Your task to perform on an android device: Search for "usb-c to usb-b" on walmart, select the first entry, and add it to the cart. Image 0: 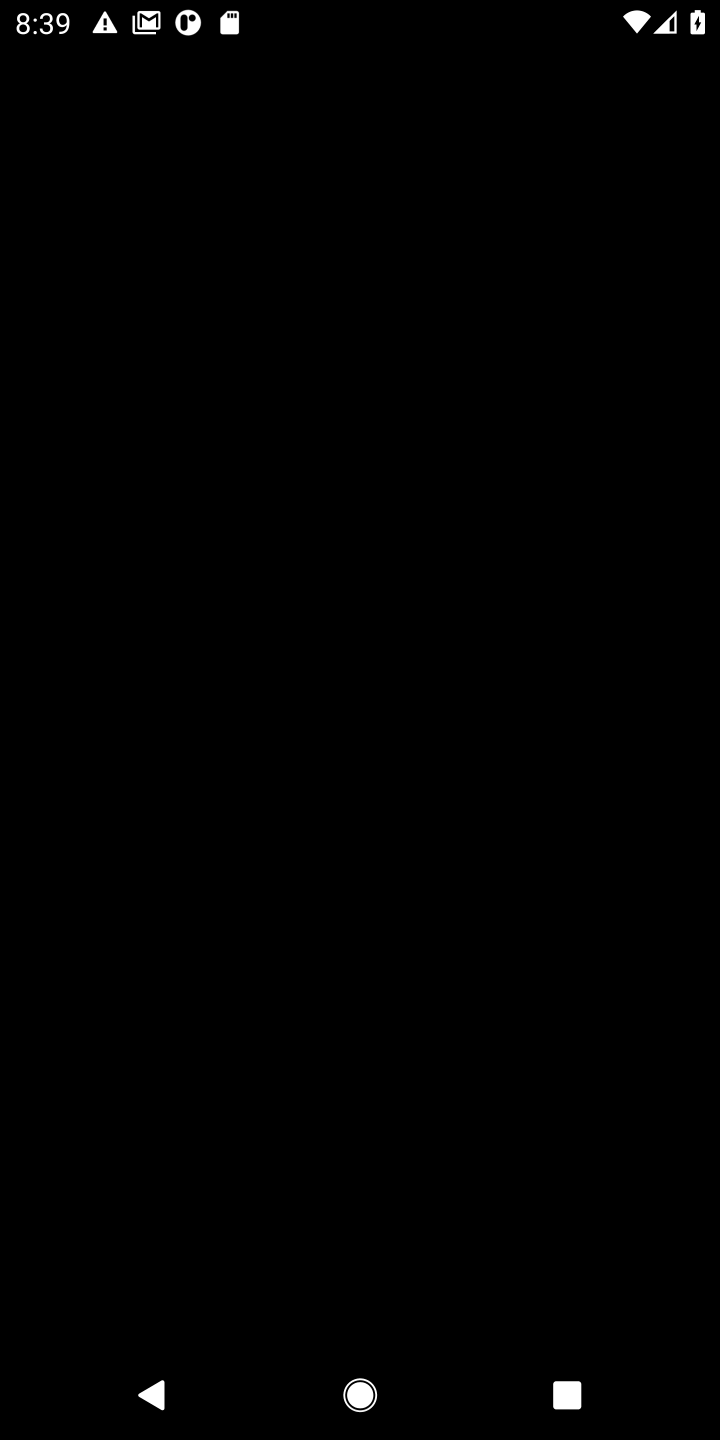
Step 0: press home button
Your task to perform on an android device: Search for "usb-c to usb-b" on walmart, select the first entry, and add it to the cart. Image 1: 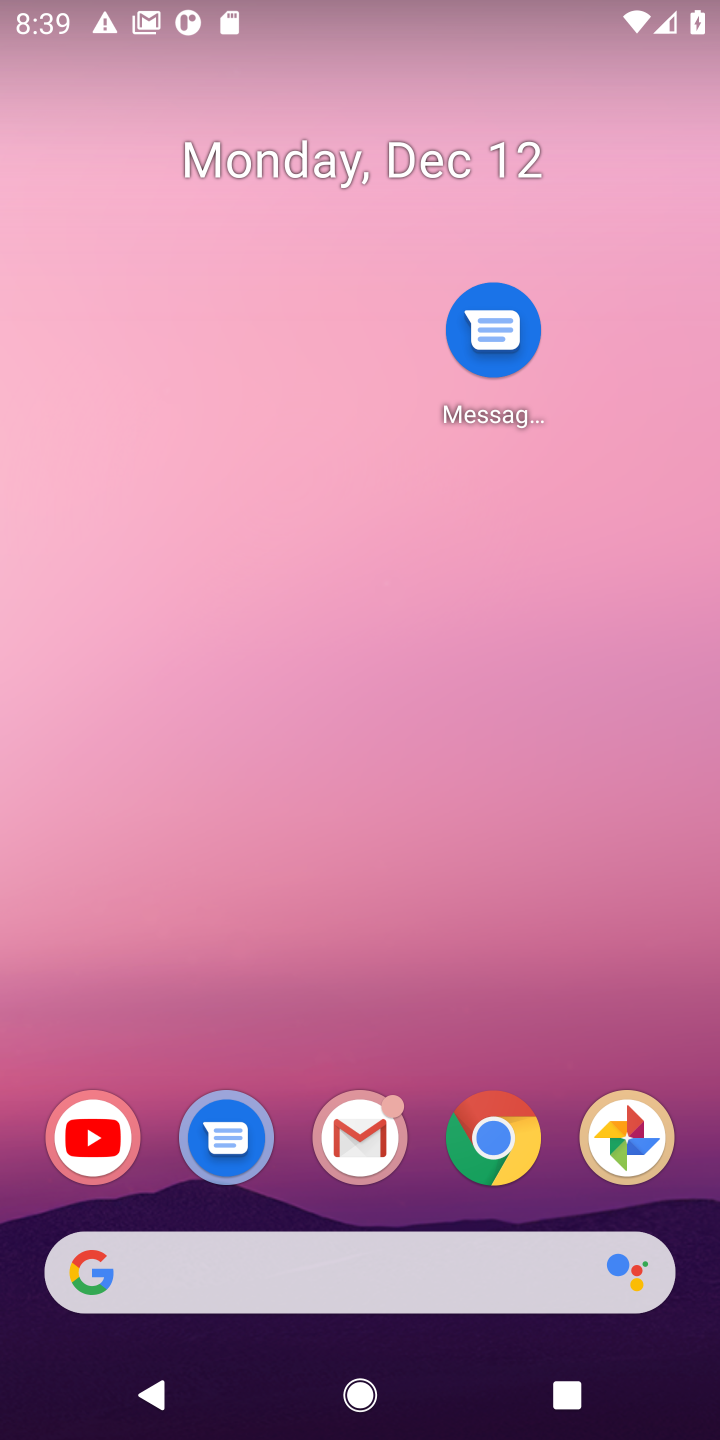
Step 1: drag from (379, 1199) to (464, 418)
Your task to perform on an android device: Search for "usb-c to usb-b" on walmart, select the first entry, and add it to the cart. Image 2: 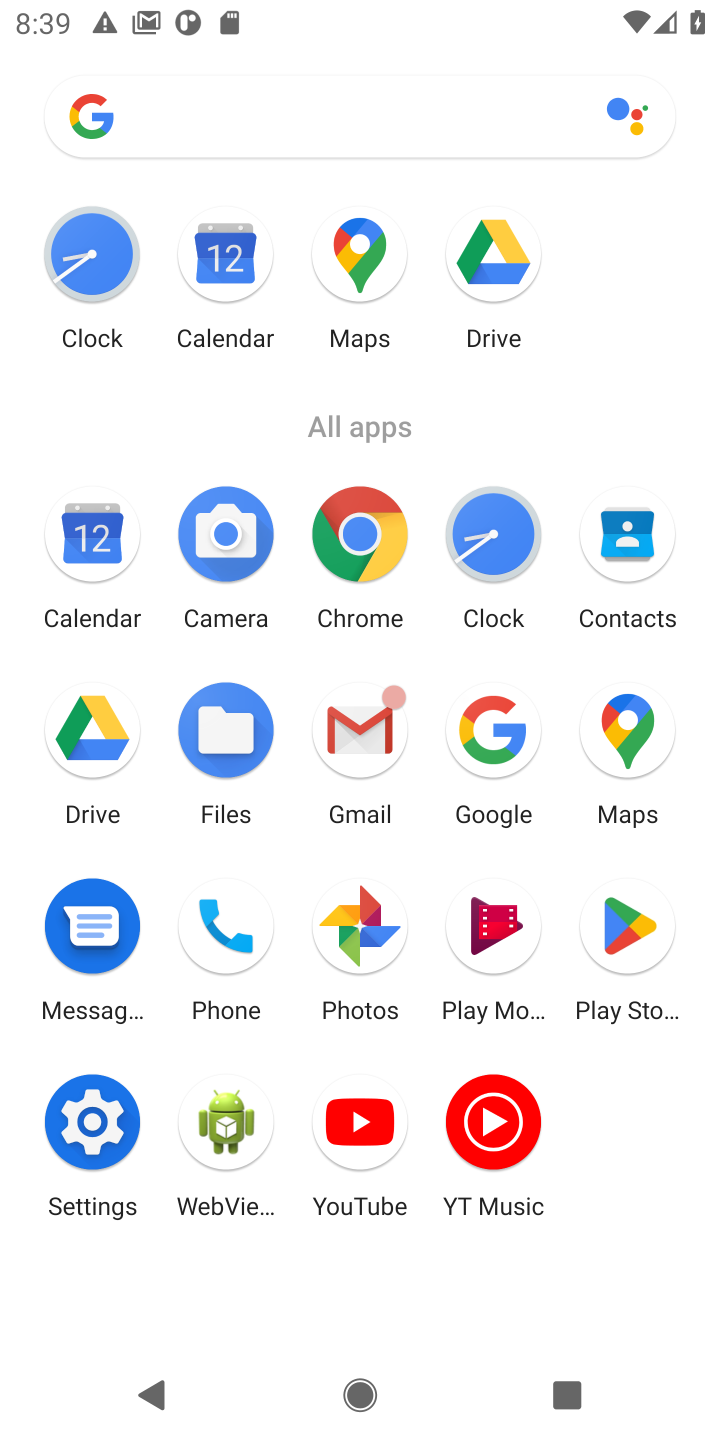
Step 2: click (480, 702)
Your task to perform on an android device: Search for "usb-c to usb-b" on walmart, select the first entry, and add it to the cart. Image 3: 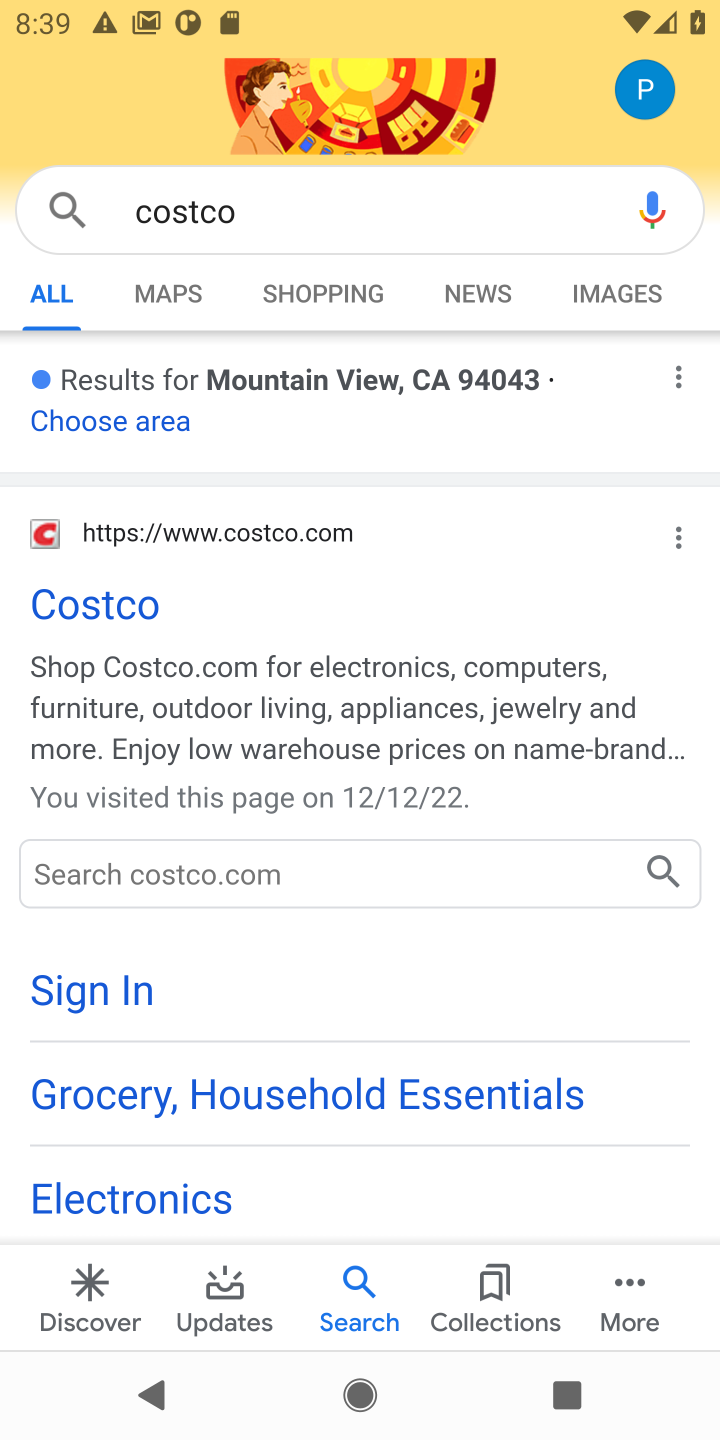
Step 3: click (174, 192)
Your task to perform on an android device: Search for "usb-c to usb-b" on walmart, select the first entry, and add it to the cart. Image 4: 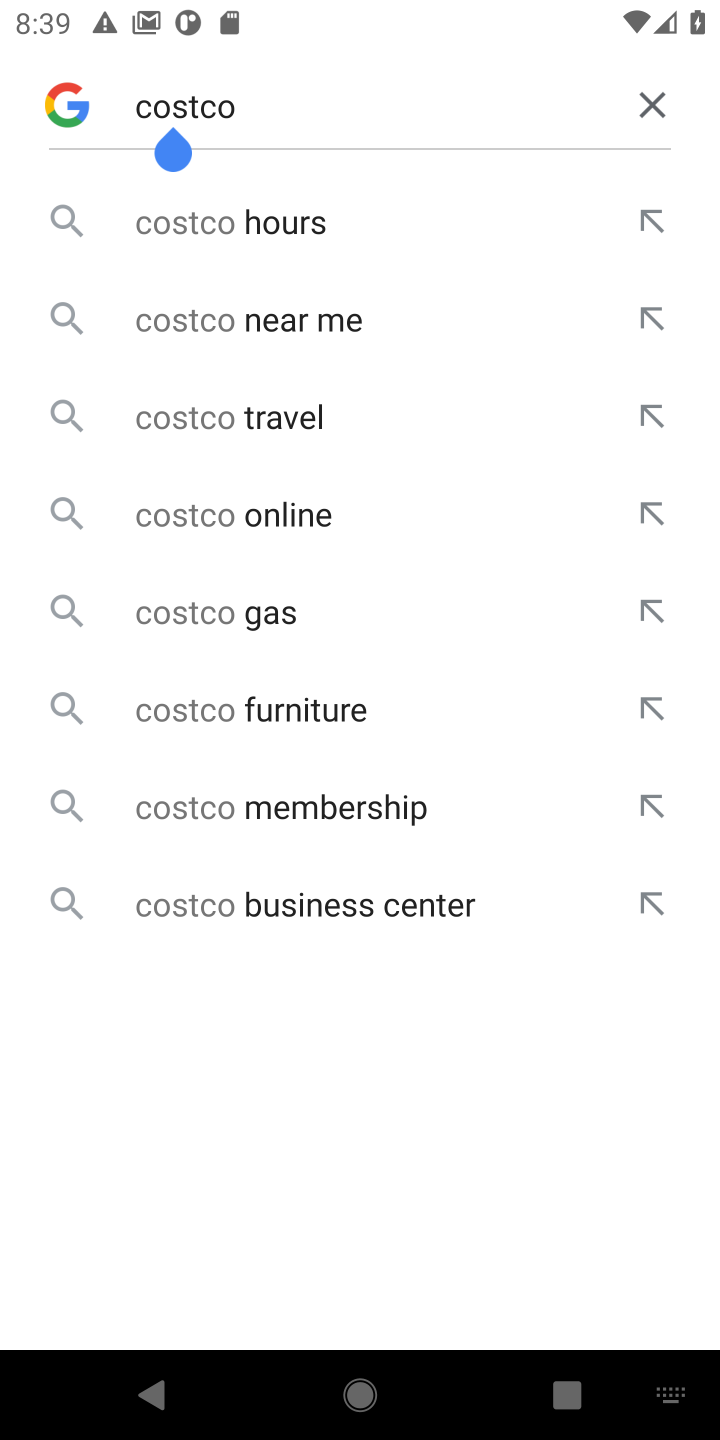
Step 4: click (658, 103)
Your task to perform on an android device: Search for "usb-c to usb-b" on walmart, select the first entry, and add it to the cart. Image 5: 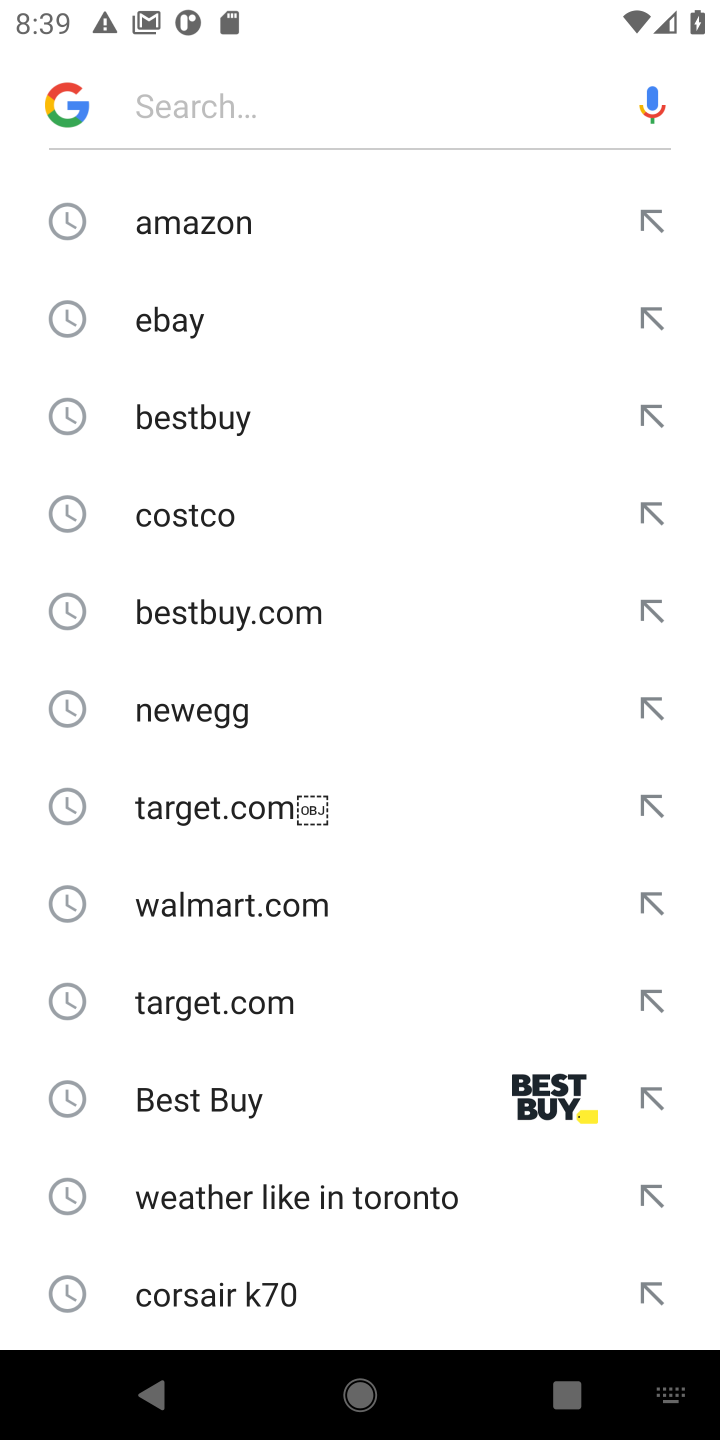
Step 5: click (211, 899)
Your task to perform on an android device: Search for "usb-c to usb-b" on walmart, select the first entry, and add it to the cart. Image 6: 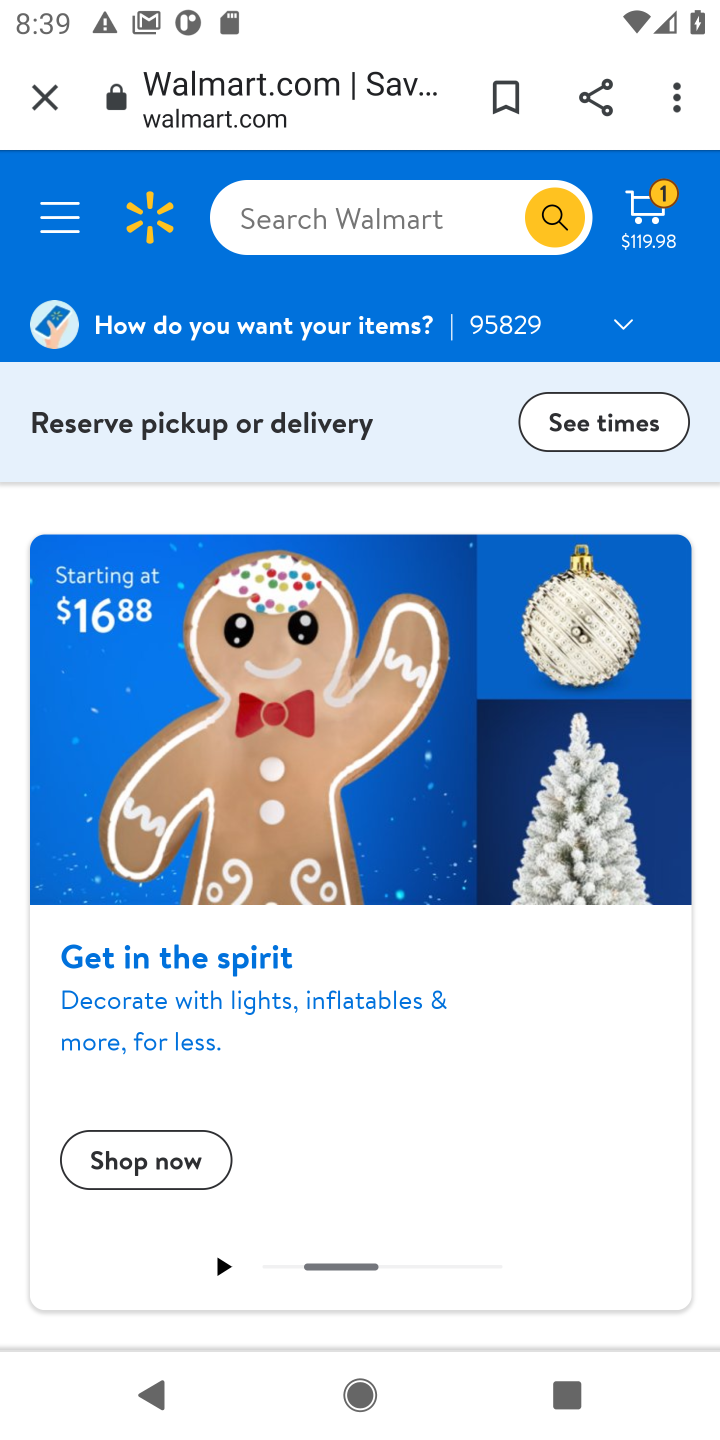
Step 6: click (340, 228)
Your task to perform on an android device: Search for "usb-c to usb-b" on walmart, select the first entry, and add it to the cart. Image 7: 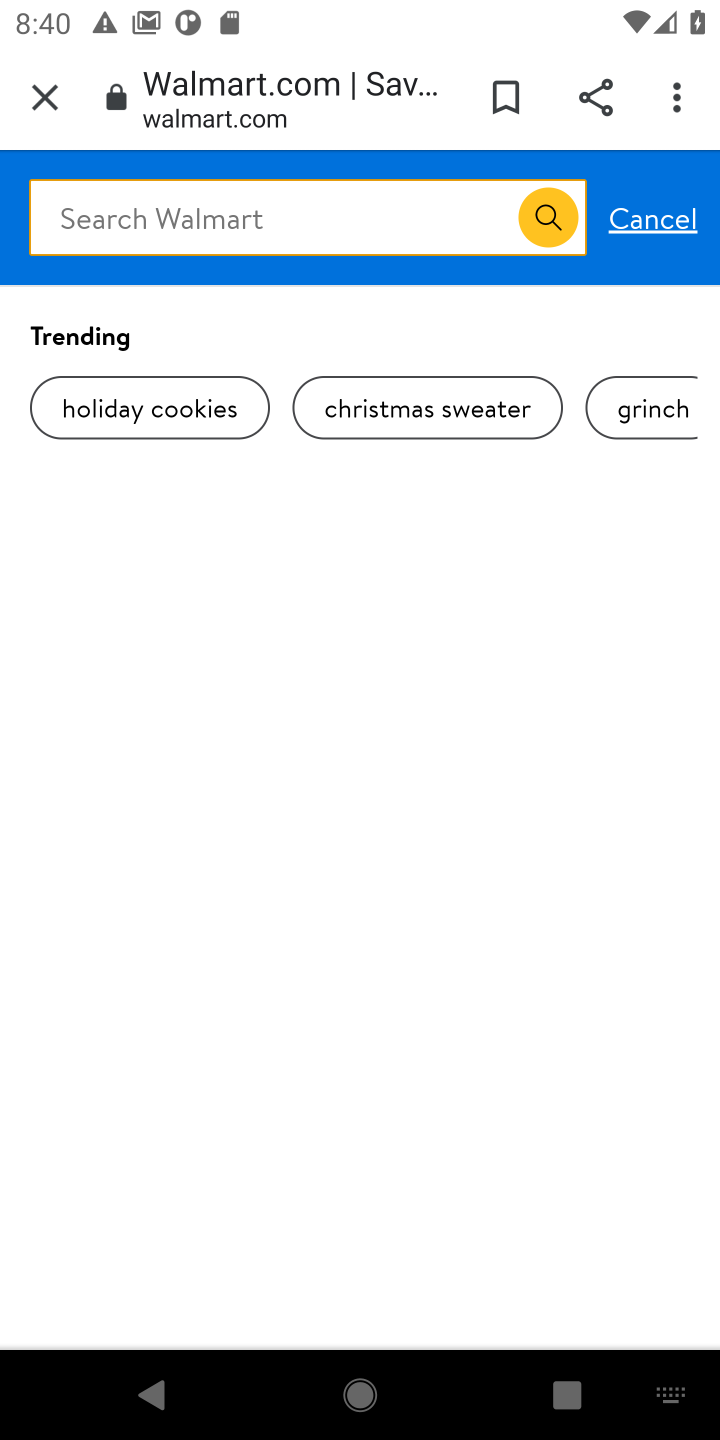
Step 7: type "usb-c to usb-b"
Your task to perform on an android device: Search for "usb-c to usb-b" on walmart, select the first entry, and add it to the cart. Image 8: 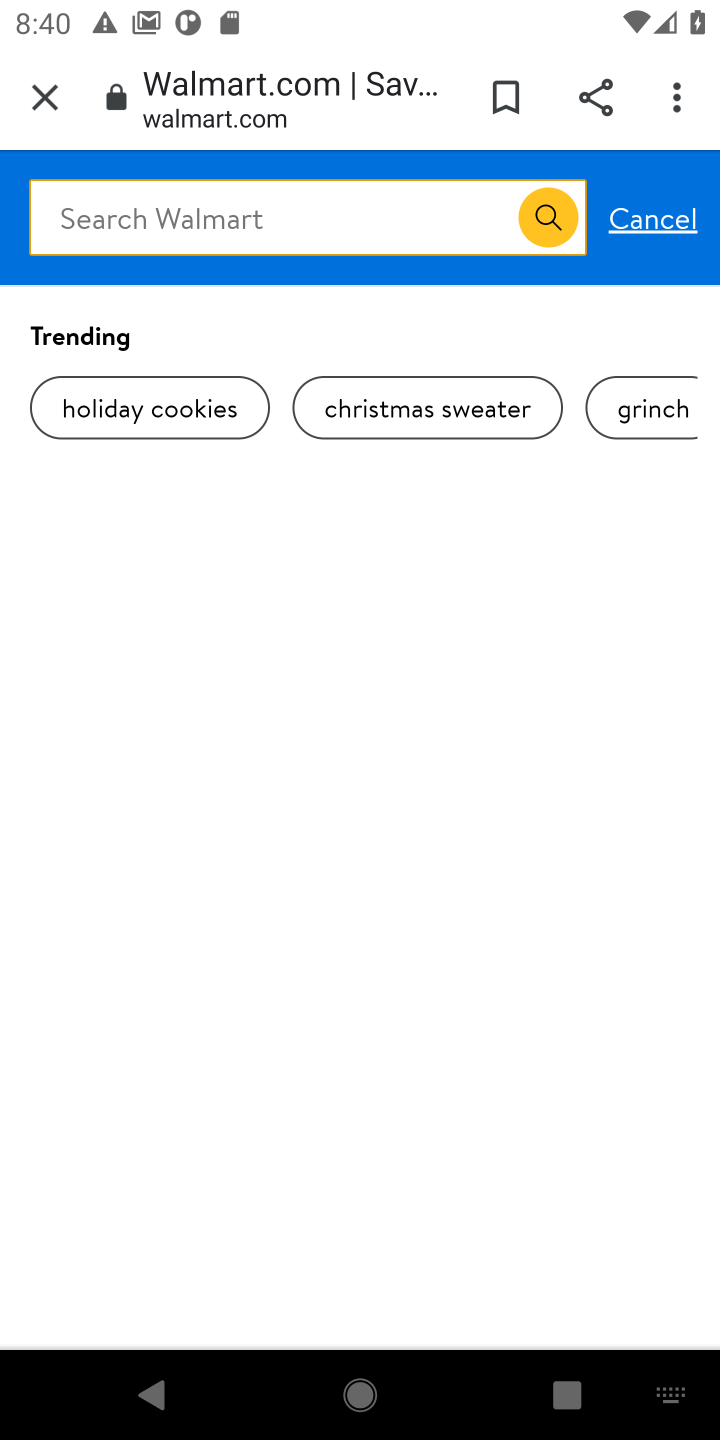
Step 8: click (537, 229)
Your task to perform on an android device: Search for "usb-c to usb-b" on walmart, select the first entry, and add it to the cart. Image 9: 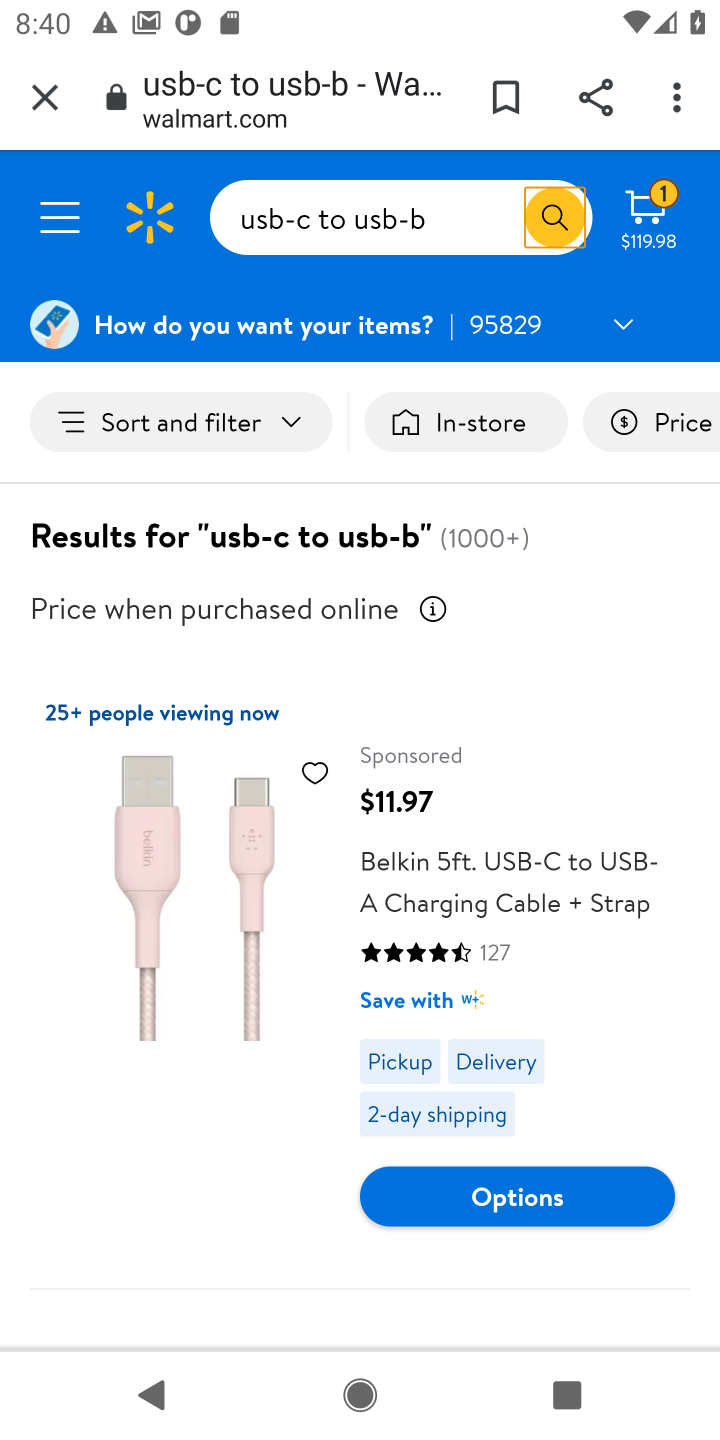
Step 9: drag from (207, 1131) to (290, 498)
Your task to perform on an android device: Search for "usb-c to usb-b" on walmart, select the first entry, and add it to the cart. Image 10: 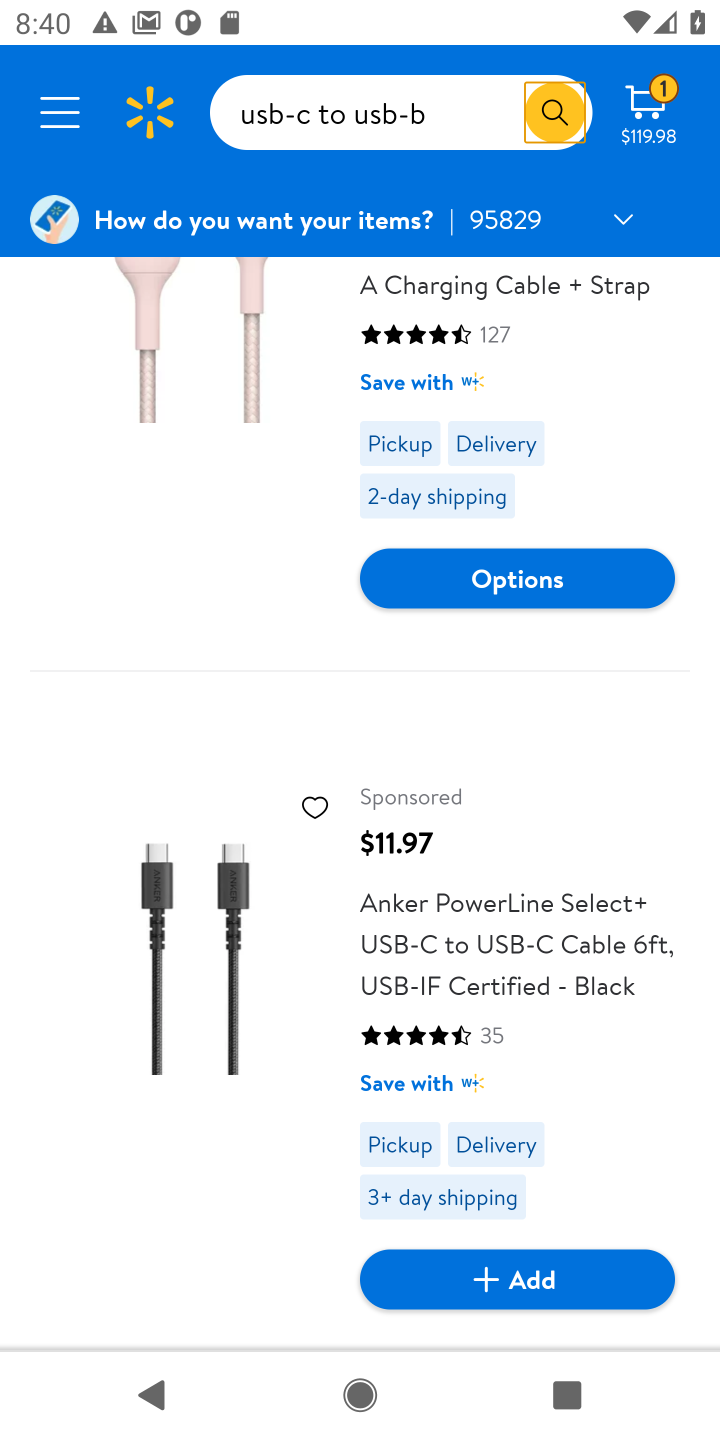
Step 10: click (524, 561)
Your task to perform on an android device: Search for "usb-c to usb-b" on walmart, select the first entry, and add it to the cart. Image 11: 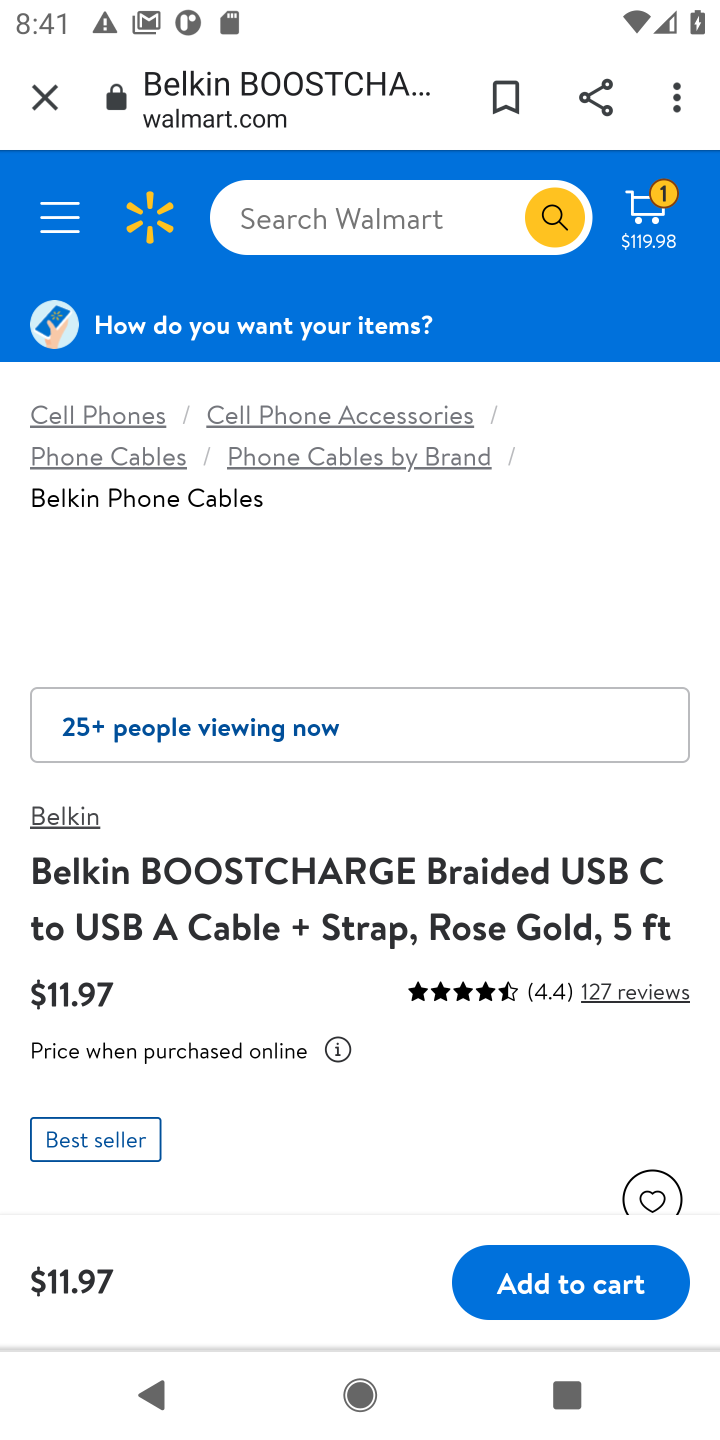
Step 11: drag from (403, 1039) to (392, 572)
Your task to perform on an android device: Search for "usb-c to usb-b" on walmart, select the first entry, and add it to the cart. Image 12: 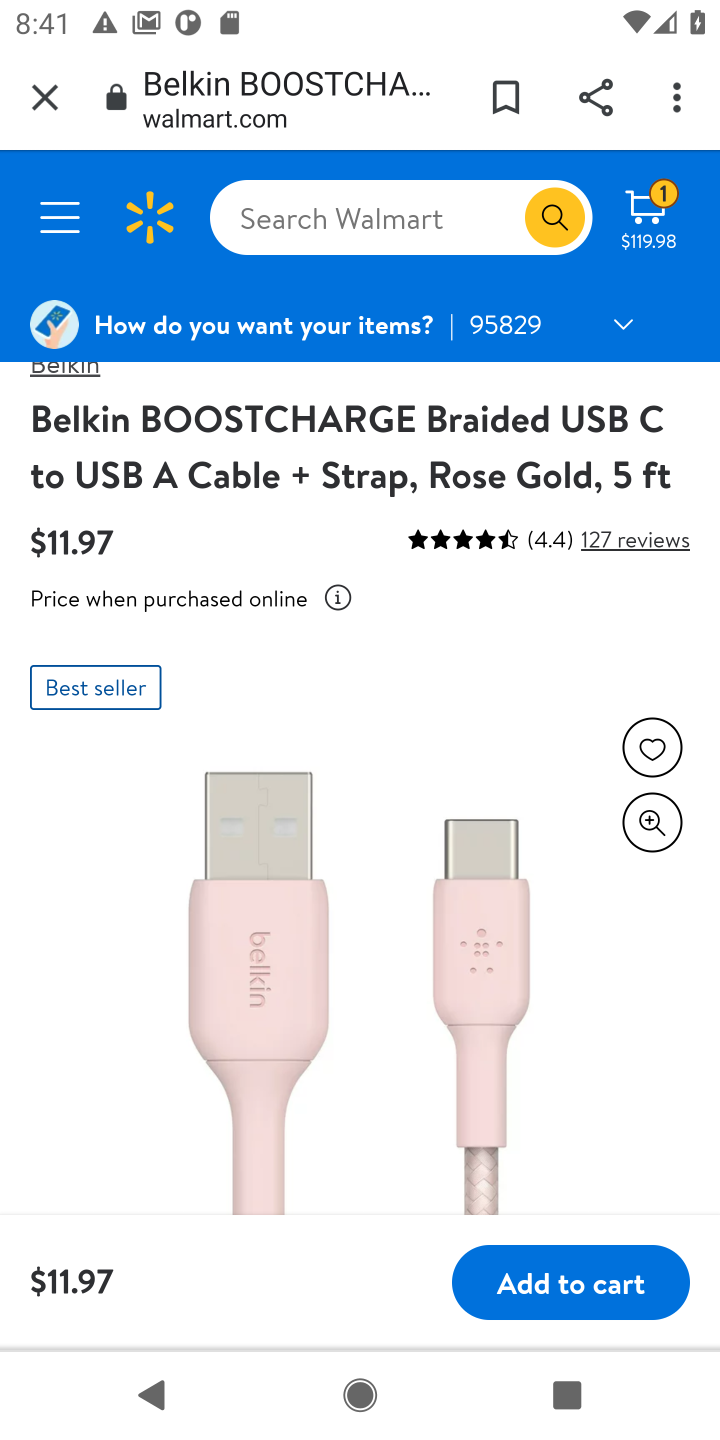
Step 12: click (531, 1301)
Your task to perform on an android device: Search for "usb-c to usb-b" on walmart, select the first entry, and add it to the cart. Image 13: 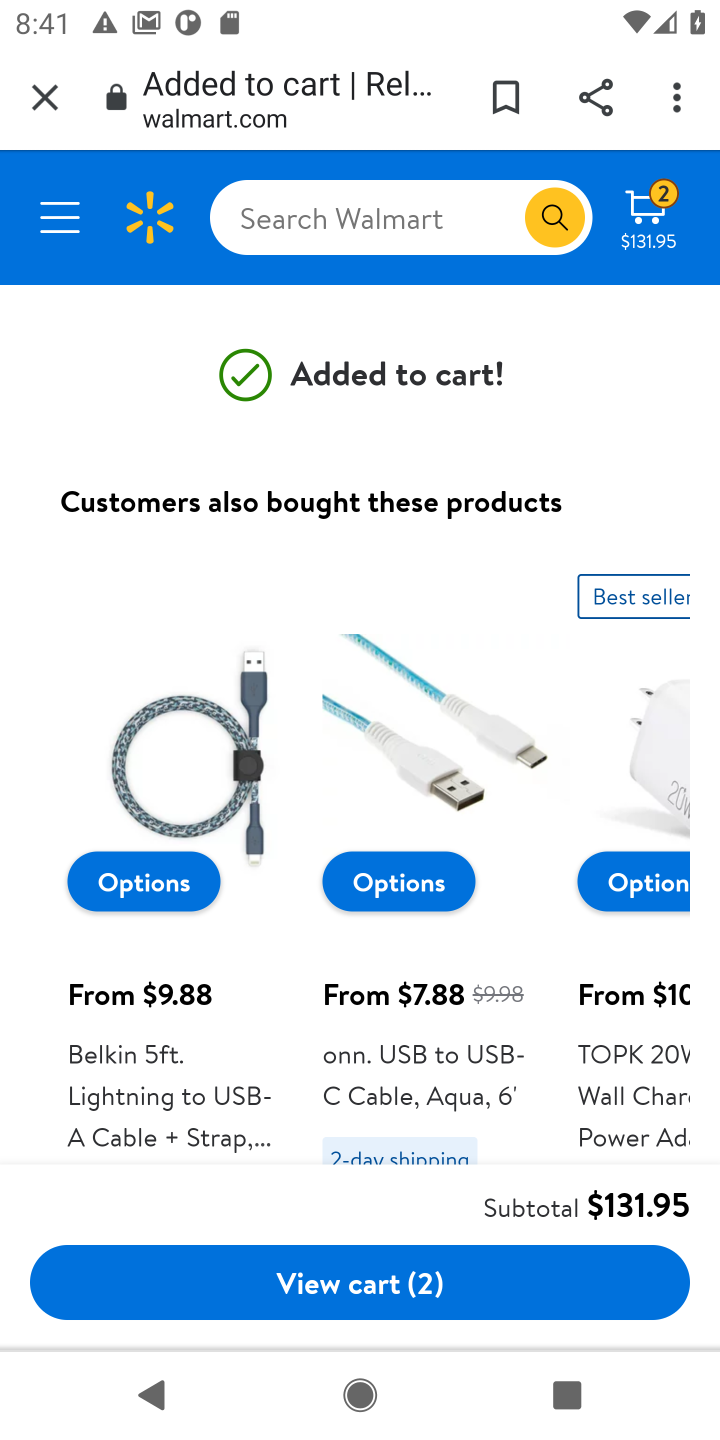
Step 13: task complete